Your task to perform on an android device: open app "Clock" Image 0: 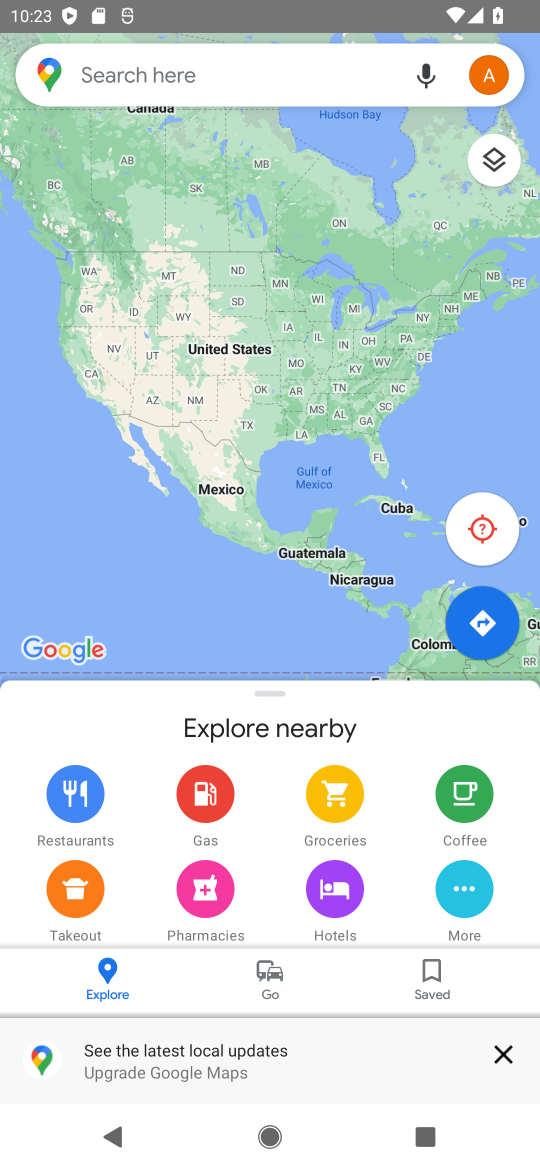
Step 0: press home button
Your task to perform on an android device: open app "Clock" Image 1: 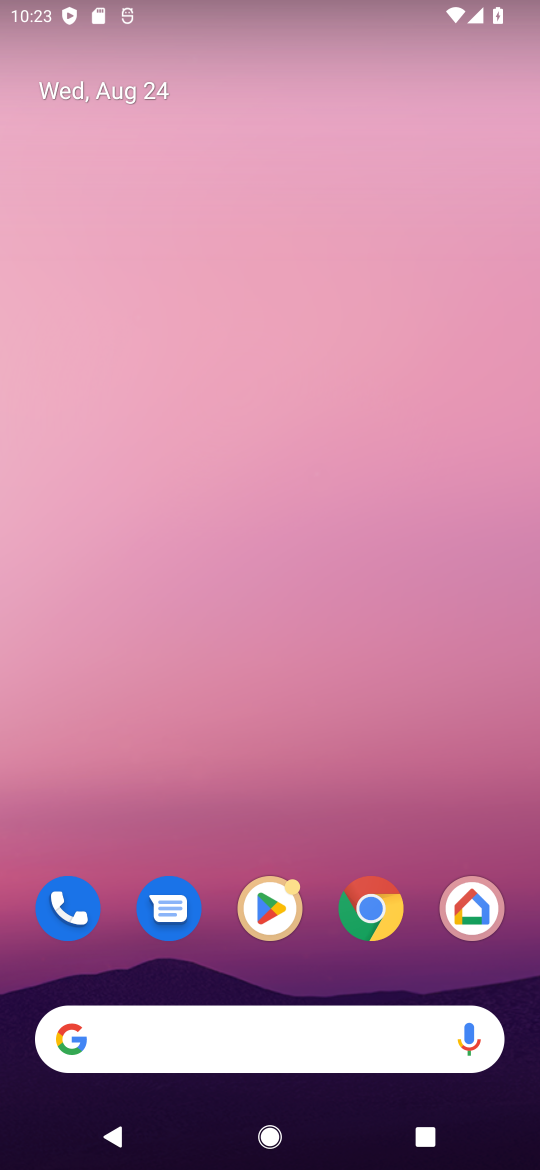
Step 1: drag from (285, 986) to (222, 208)
Your task to perform on an android device: open app "Clock" Image 2: 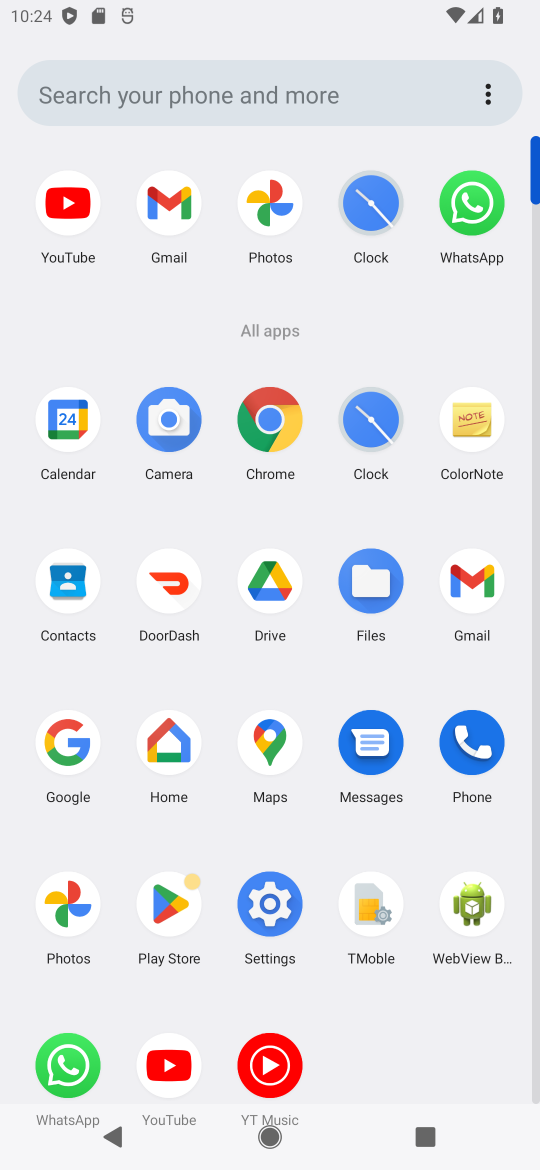
Step 2: click (375, 399)
Your task to perform on an android device: open app "Clock" Image 3: 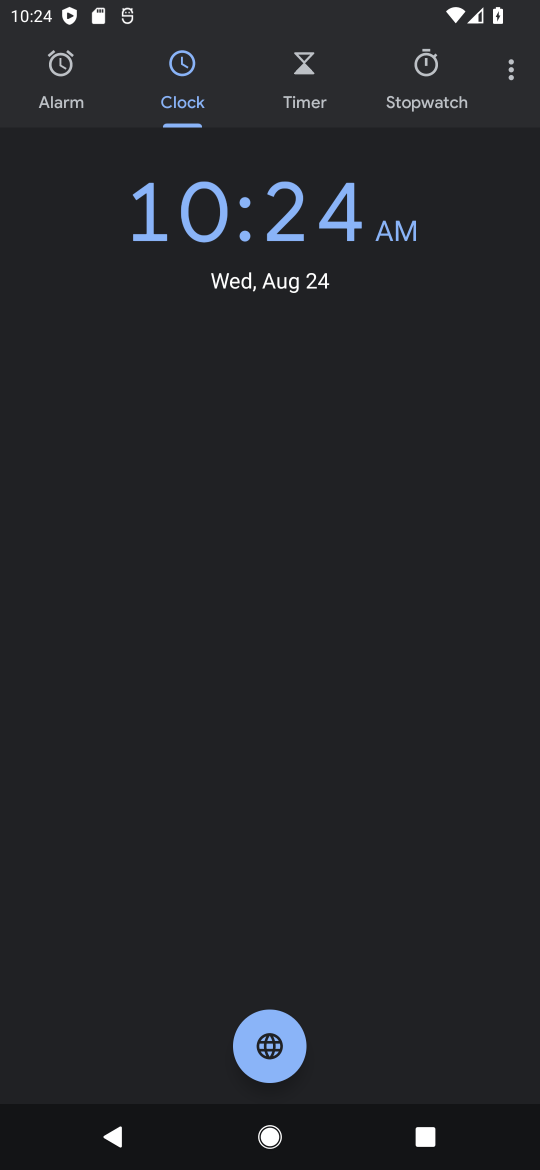
Step 3: task complete